Your task to perform on an android device: open a bookmark in the chrome app Image 0: 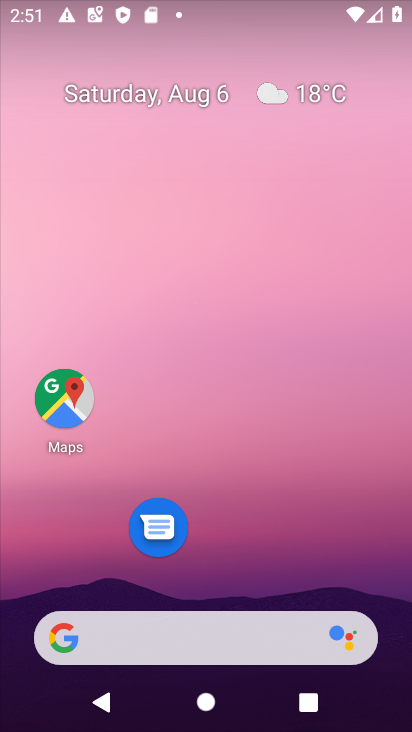
Step 0: drag from (232, 547) to (272, 110)
Your task to perform on an android device: open a bookmark in the chrome app Image 1: 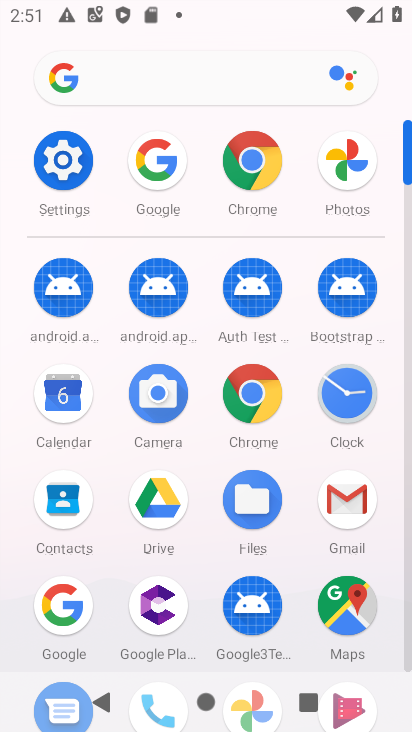
Step 1: click (262, 406)
Your task to perform on an android device: open a bookmark in the chrome app Image 2: 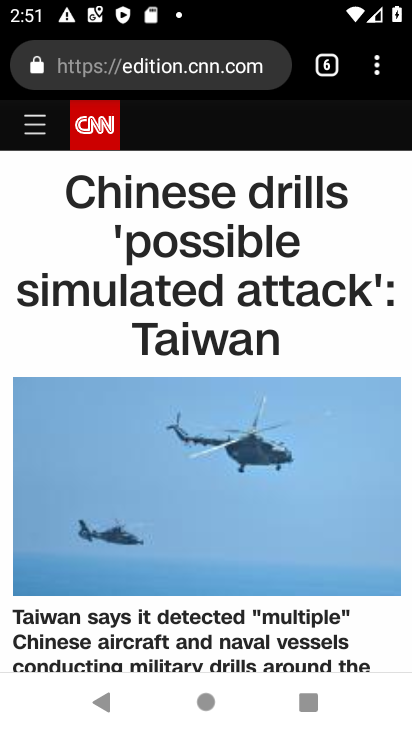
Step 2: click (382, 71)
Your task to perform on an android device: open a bookmark in the chrome app Image 3: 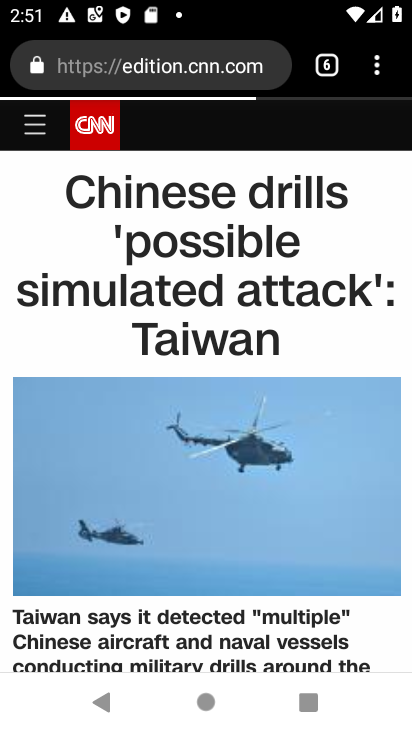
Step 3: click (380, 73)
Your task to perform on an android device: open a bookmark in the chrome app Image 4: 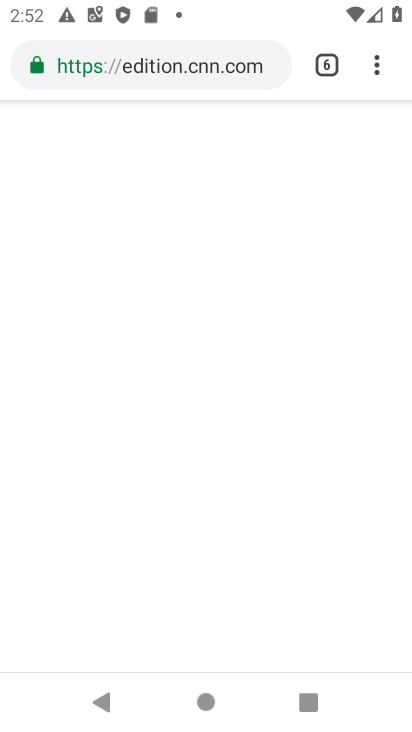
Step 4: task complete